Your task to perform on an android device: Search for the best selling book on Amazon. Image 0: 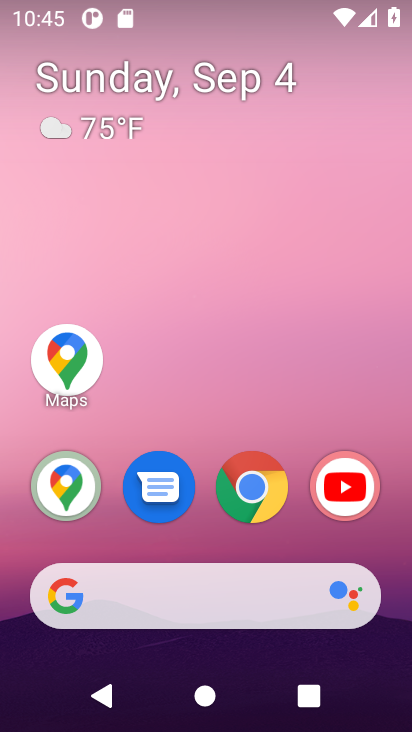
Step 0: click (346, 497)
Your task to perform on an android device: Search for the best selling book on Amazon. Image 1: 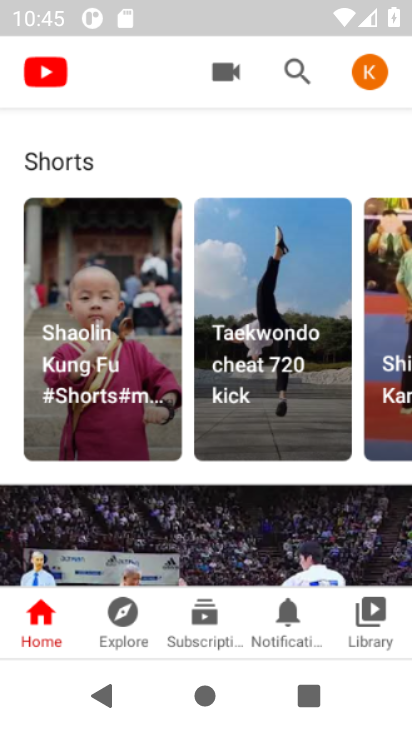
Step 1: click (140, 347)
Your task to perform on an android device: Search for the best selling book on Amazon. Image 2: 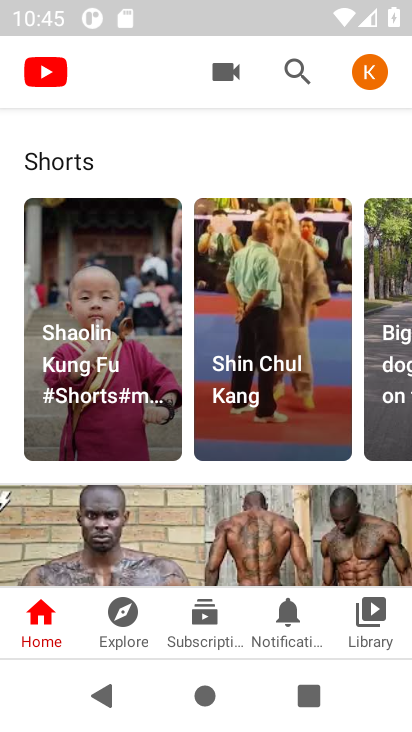
Step 2: task complete